Your task to perform on an android device: Search for "razer blade" on costco.com, select the first entry, add it to the cart, then select checkout. Image 0: 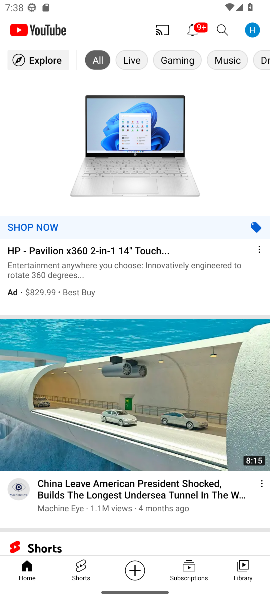
Step 0: press home button
Your task to perform on an android device: Search for "razer blade" on costco.com, select the first entry, add it to the cart, then select checkout. Image 1: 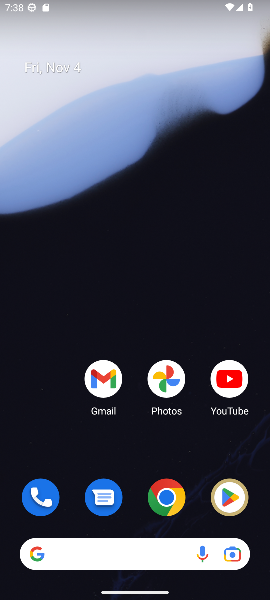
Step 1: click (151, 500)
Your task to perform on an android device: Search for "razer blade" on costco.com, select the first entry, add it to the cart, then select checkout. Image 2: 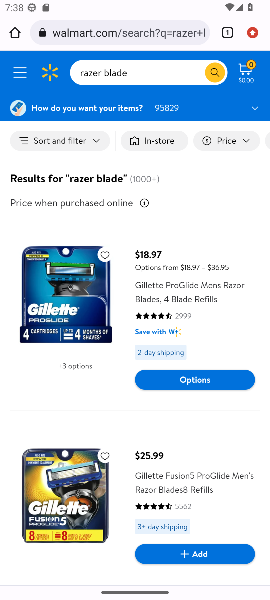
Step 2: click (141, 32)
Your task to perform on an android device: Search for "razer blade" on costco.com, select the first entry, add it to the cart, then select checkout. Image 3: 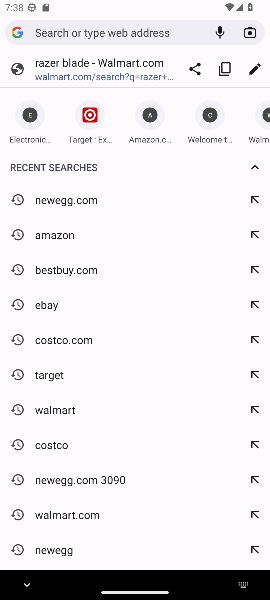
Step 3: type "costco.com"
Your task to perform on an android device: Search for "razer blade" on costco.com, select the first entry, add it to the cart, then select checkout. Image 4: 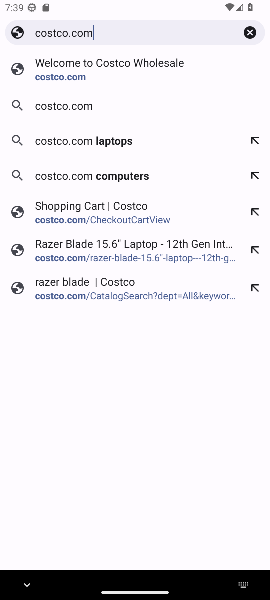
Step 4: click (62, 71)
Your task to perform on an android device: Search for "razer blade" on costco.com, select the first entry, add it to the cart, then select checkout. Image 5: 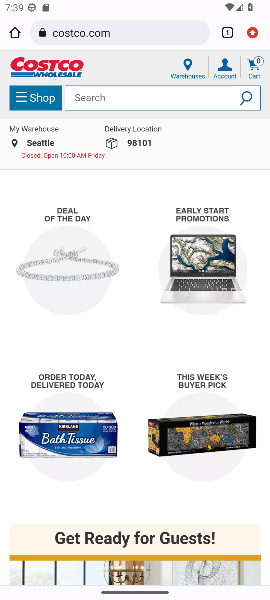
Step 5: click (101, 94)
Your task to perform on an android device: Search for "razer blade" on costco.com, select the first entry, add it to the cart, then select checkout. Image 6: 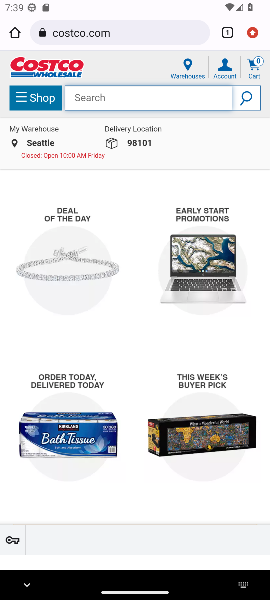
Step 6: type "razer blade"
Your task to perform on an android device: Search for "razer blade" on costco.com, select the first entry, add it to the cart, then select checkout. Image 7: 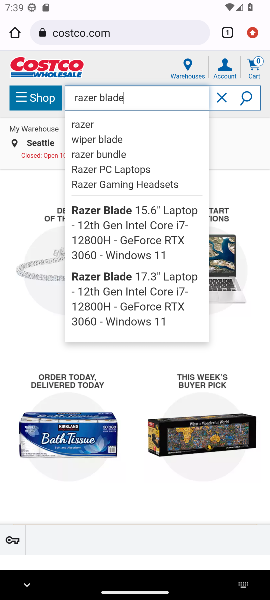
Step 7: click (246, 99)
Your task to perform on an android device: Search for "razer blade" on costco.com, select the first entry, add it to the cart, then select checkout. Image 8: 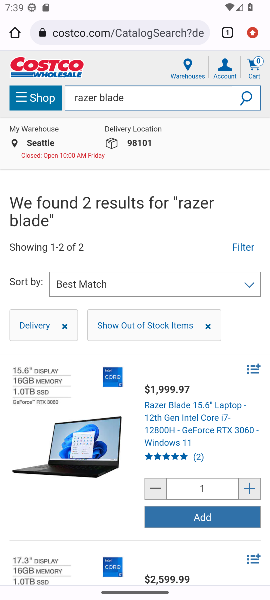
Step 8: click (122, 452)
Your task to perform on an android device: Search for "razer blade" on costco.com, select the first entry, add it to the cart, then select checkout. Image 9: 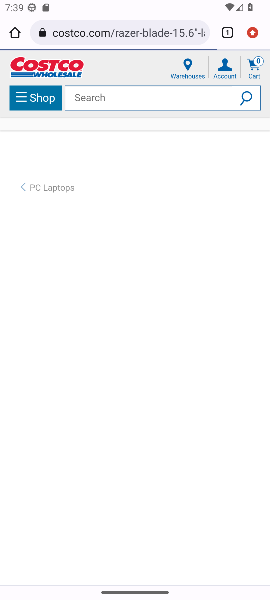
Step 9: drag from (122, 452) to (142, 189)
Your task to perform on an android device: Search for "razer blade" on costco.com, select the first entry, add it to the cart, then select checkout. Image 10: 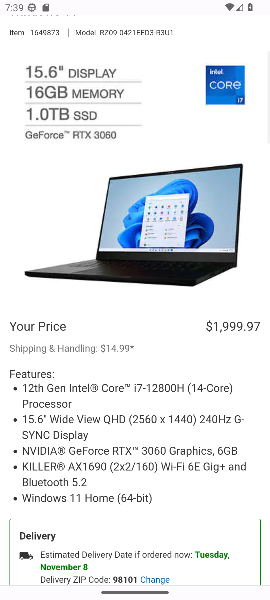
Step 10: drag from (187, 437) to (192, 165)
Your task to perform on an android device: Search for "razer blade" on costco.com, select the first entry, add it to the cart, then select checkout. Image 11: 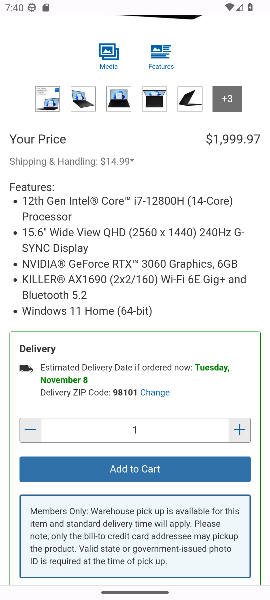
Step 11: click (138, 468)
Your task to perform on an android device: Search for "razer blade" on costco.com, select the first entry, add it to the cart, then select checkout. Image 12: 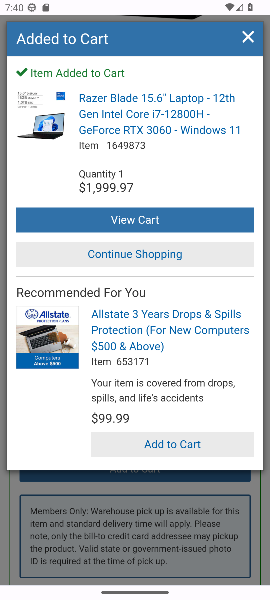
Step 12: click (140, 217)
Your task to perform on an android device: Search for "razer blade" on costco.com, select the first entry, add it to the cart, then select checkout. Image 13: 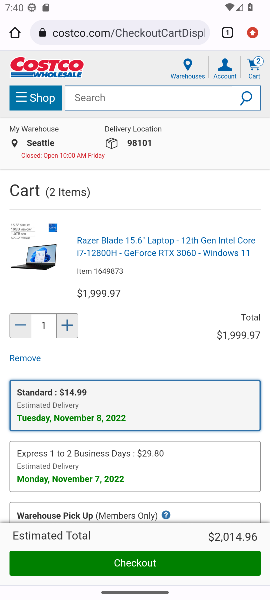
Step 13: click (134, 565)
Your task to perform on an android device: Search for "razer blade" on costco.com, select the first entry, add it to the cart, then select checkout. Image 14: 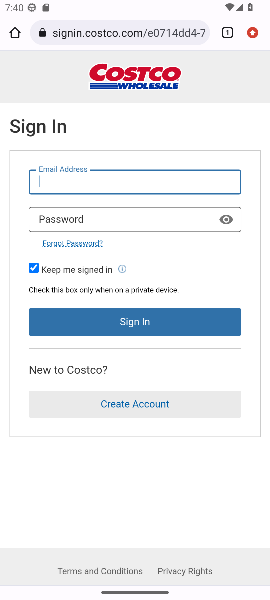
Step 14: task complete